Your task to perform on an android device: Go to Yahoo.com Image 0: 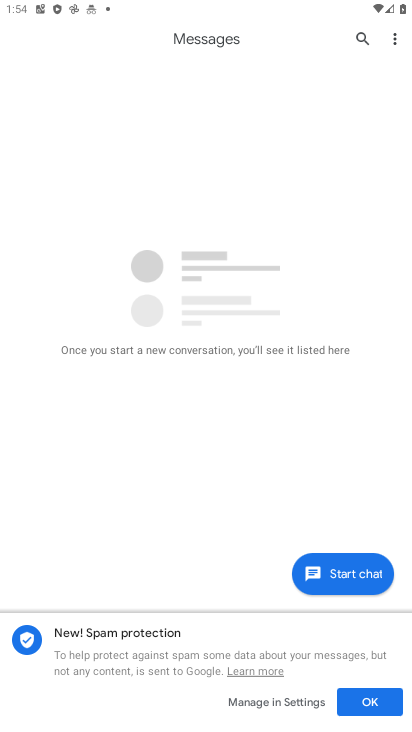
Step 0: press home button
Your task to perform on an android device: Go to Yahoo.com Image 1: 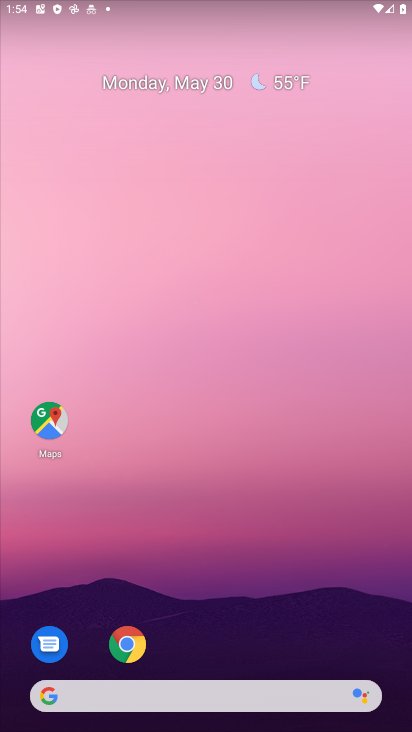
Step 1: click (145, 697)
Your task to perform on an android device: Go to Yahoo.com Image 2: 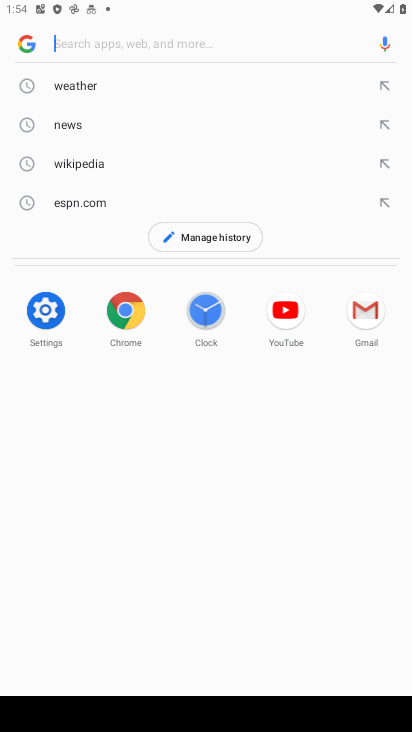
Step 2: type "yahoo.com"
Your task to perform on an android device: Go to Yahoo.com Image 3: 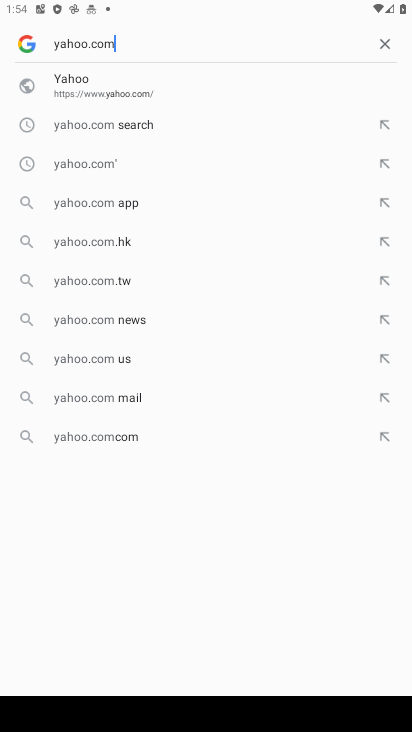
Step 3: click (200, 91)
Your task to perform on an android device: Go to Yahoo.com Image 4: 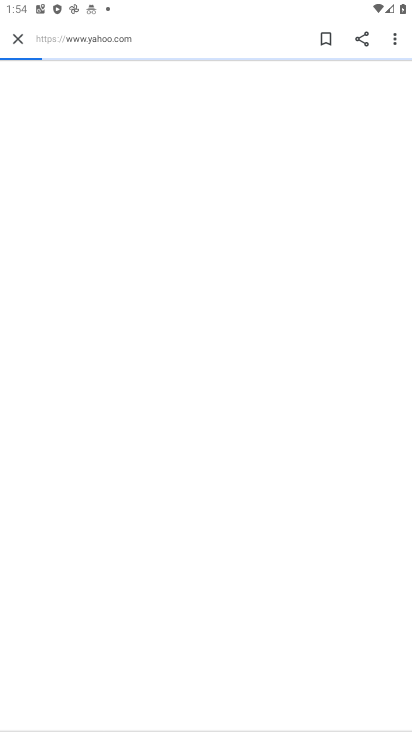
Step 4: task complete